Your task to perform on an android device: show emergency info Image 0: 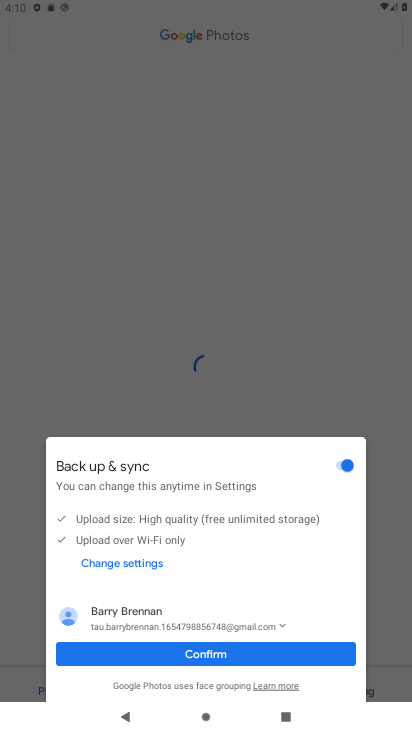
Step 0: press home button
Your task to perform on an android device: show emergency info Image 1: 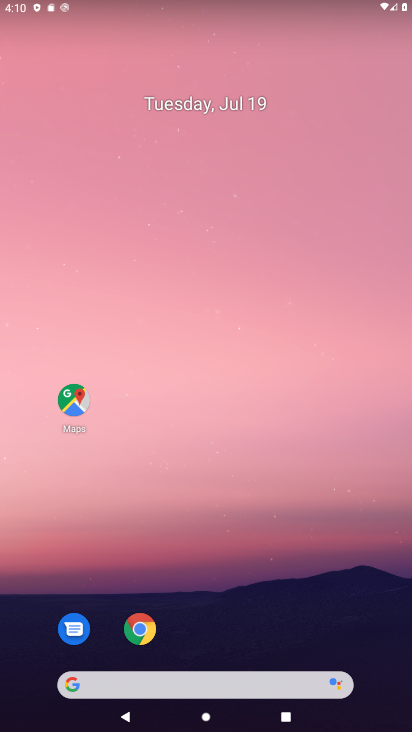
Step 1: drag from (197, 662) to (189, 74)
Your task to perform on an android device: show emergency info Image 2: 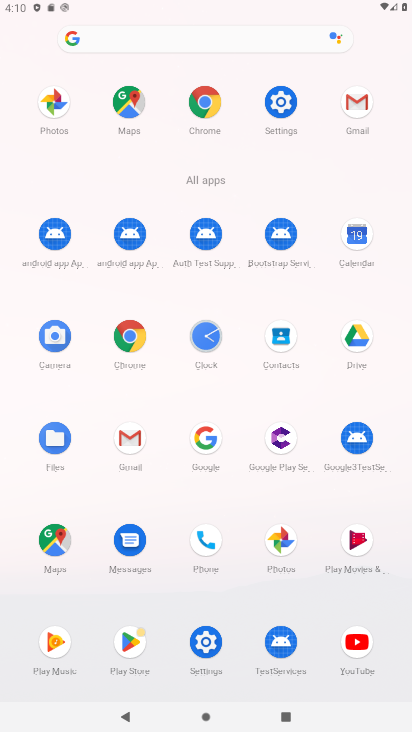
Step 2: click (275, 109)
Your task to perform on an android device: show emergency info Image 3: 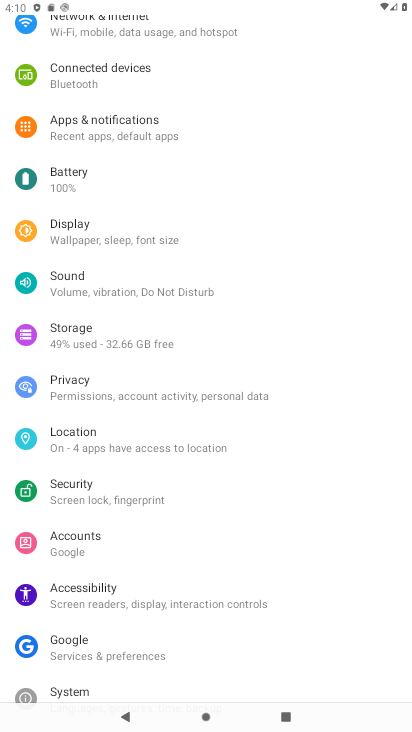
Step 3: drag from (135, 658) to (121, 272)
Your task to perform on an android device: show emergency info Image 4: 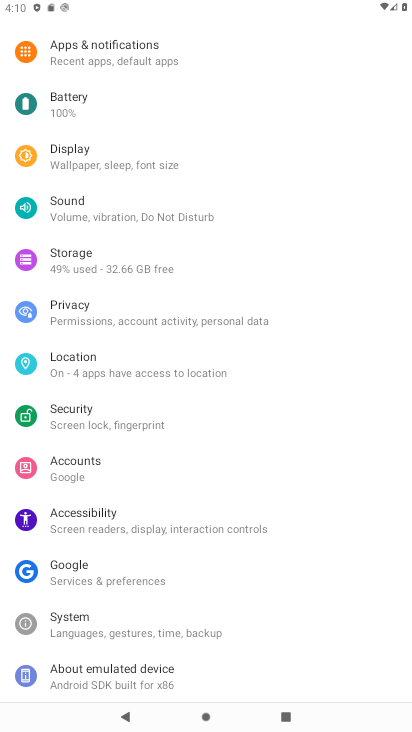
Step 4: click (126, 668)
Your task to perform on an android device: show emergency info Image 5: 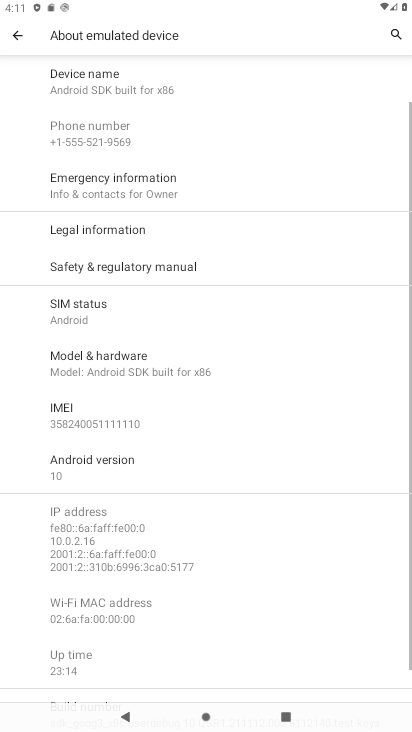
Step 5: click (125, 186)
Your task to perform on an android device: show emergency info Image 6: 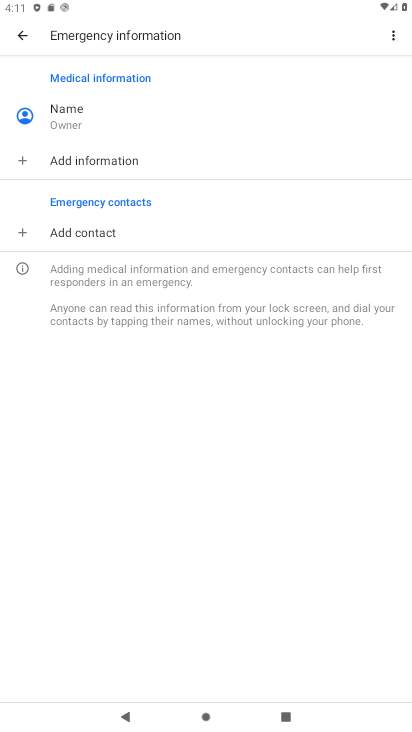
Step 6: task complete